Your task to perform on an android device: add a label to a message in the gmail app Image 0: 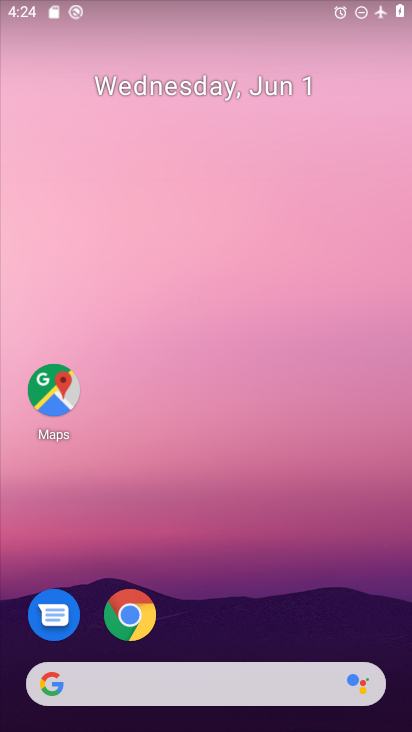
Step 0: press home button
Your task to perform on an android device: add a label to a message in the gmail app Image 1: 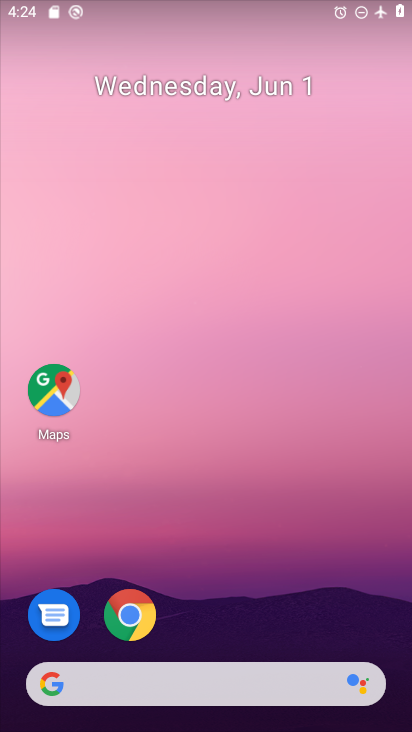
Step 1: drag from (235, 646) to (277, 208)
Your task to perform on an android device: add a label to a message in the gmail app Image 2: 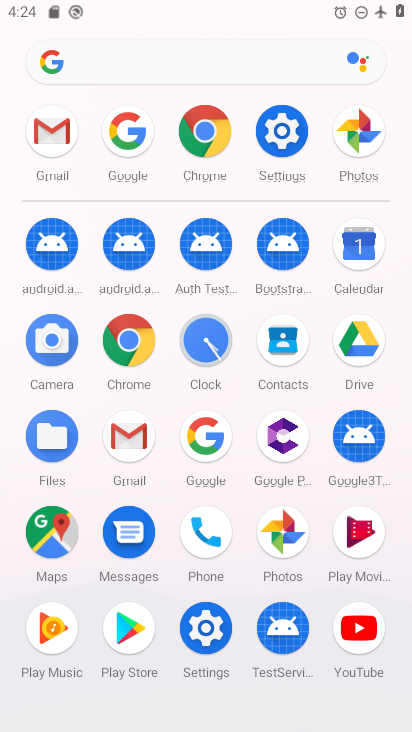
Step 2: click (122, 429)
Your task to perform on an android device: add a label to a message in the gmail app Image 3: 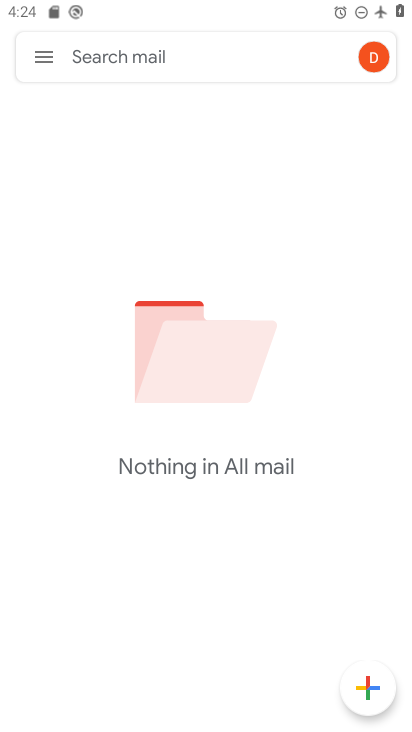
Step 3: task complete